Your task to perform on an android device: turn on the 12-hour format for clock Image 0: 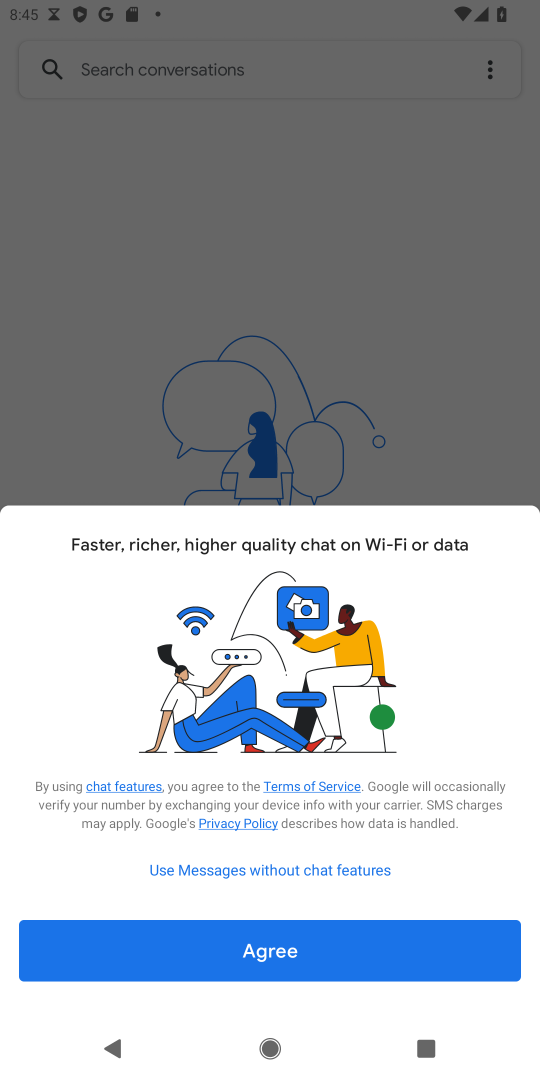
Step 0: press home button
Your task to perform on an android device: turn on the 12-hour format for clock Image 1: 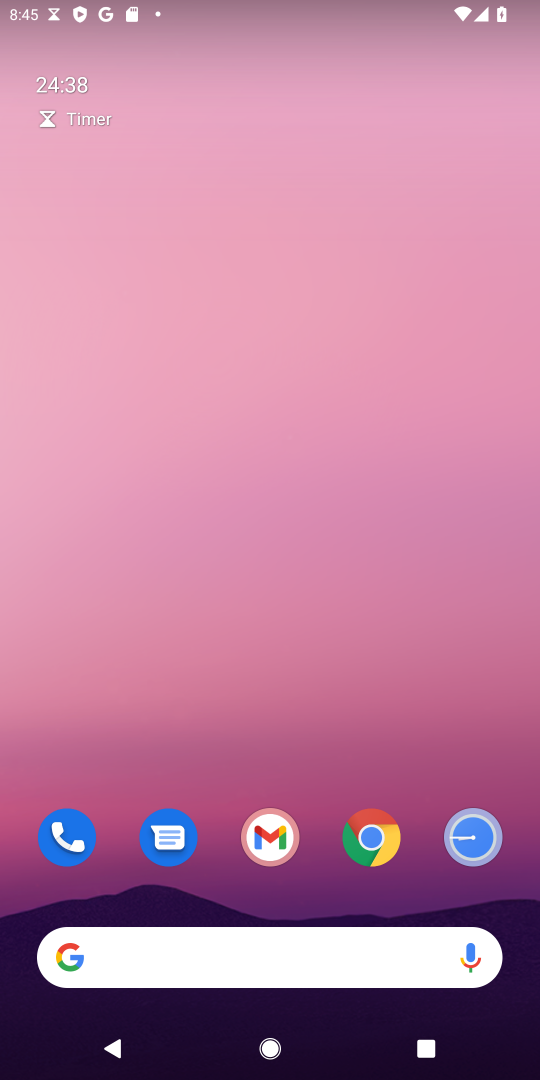
Step 1: drag from (330, 807) to (359, 174)
Your task to perform on an android device: turn on the 12-hour format for clock Image 2: 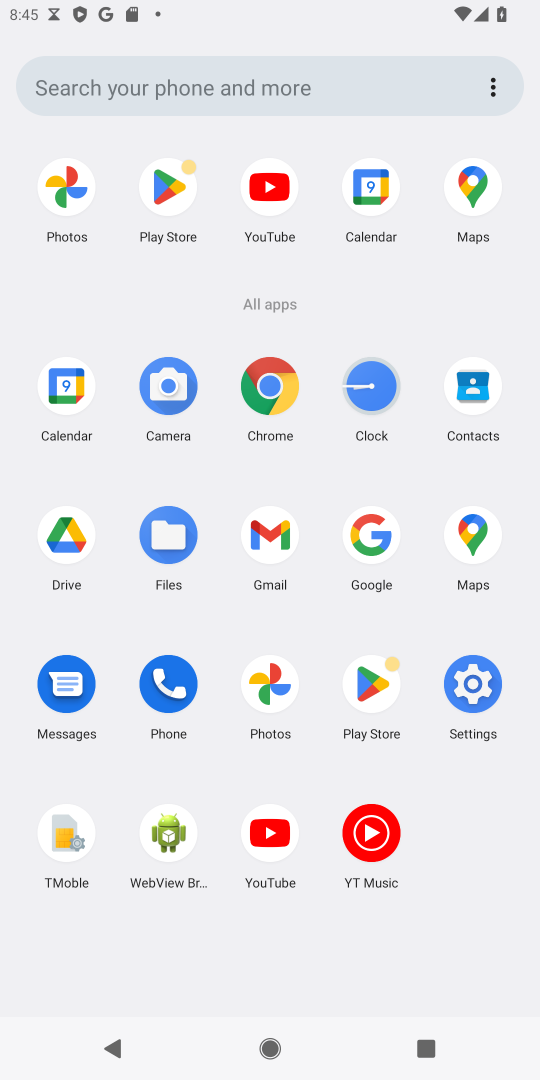
Step 2: click (366, 384)
Your task to perform on an android device: turn on the 12-hour format for clock Image 3: 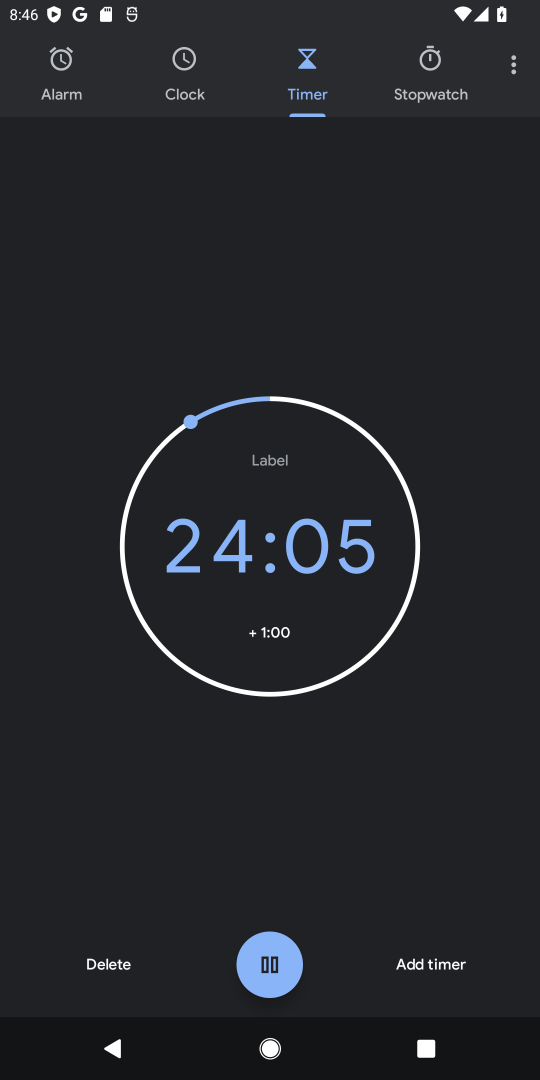
Step 3: click (515, 63)
Your task to perform on an android device: turn on the 12-hour format for clock Image 4: 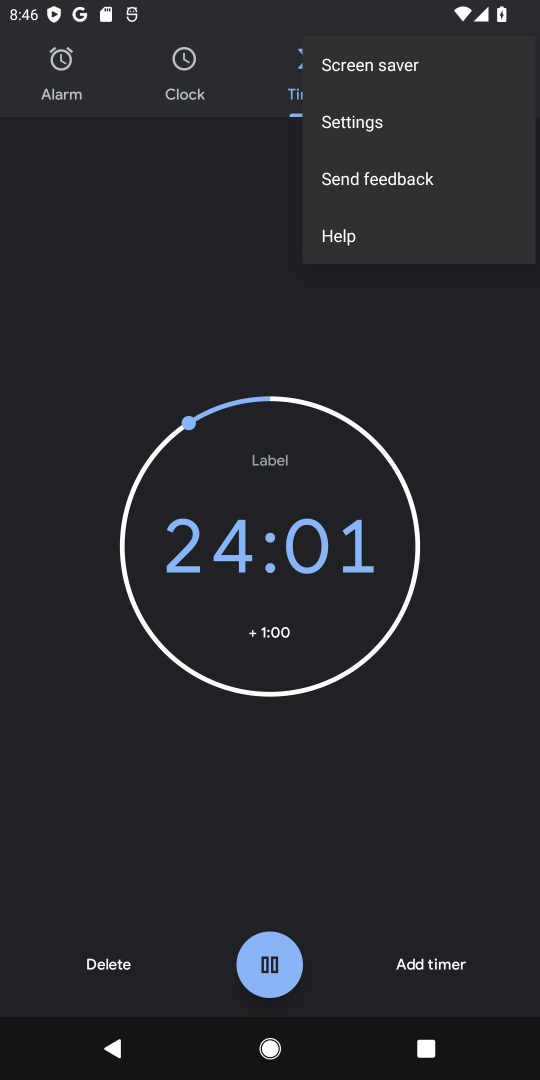
Step 4: click (368, 121)
Your task to perform on an android device: turn on the 12-hour format for clock Image 5: 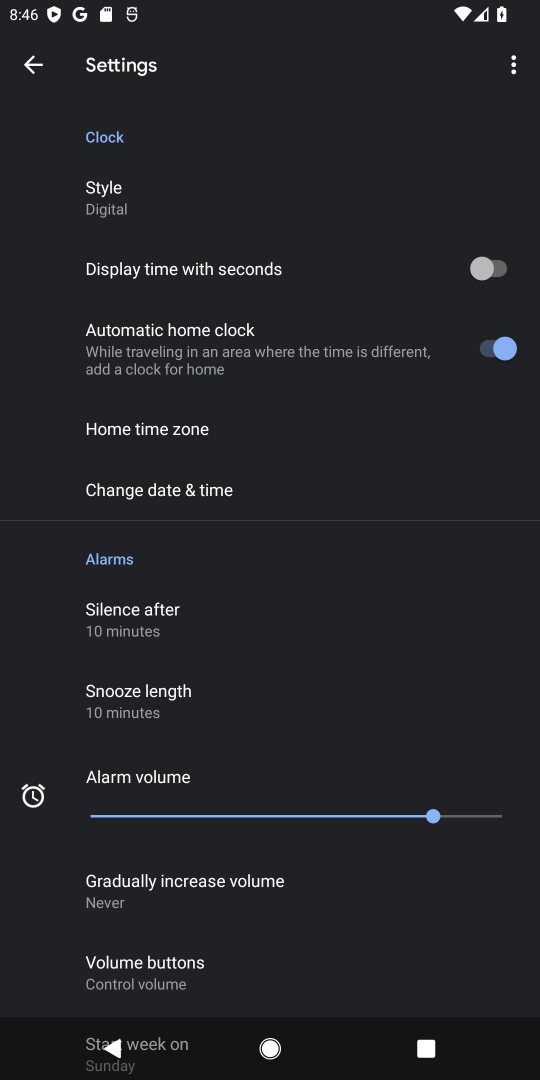
Step 5: click (172, 498)
Your task to perform on an android device: turn on the 12-hour format for clock Image 6: 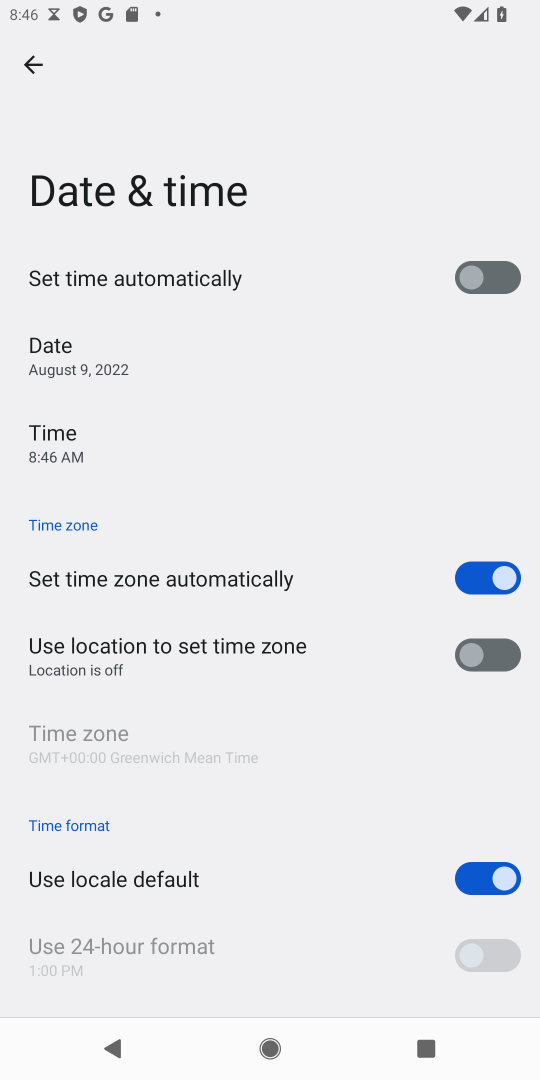
Step 6: task complete